Your task to perform on an android device: Open calendar and show me the fourth week of next month Image 0: 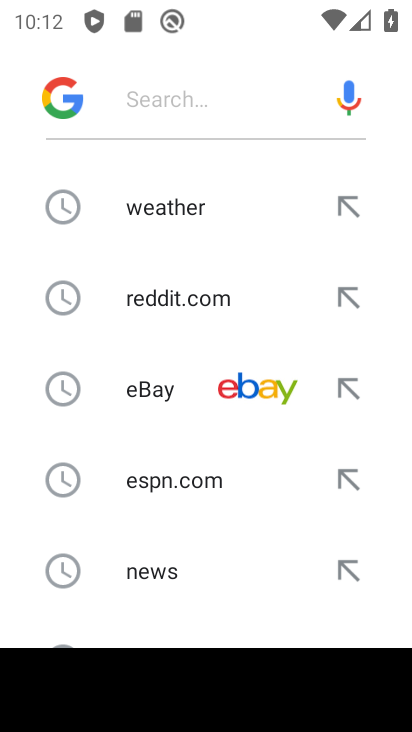
Step 0: press home button
Your task to perform on an android device: Open calendar and show me the fourth week of next month Image 1: 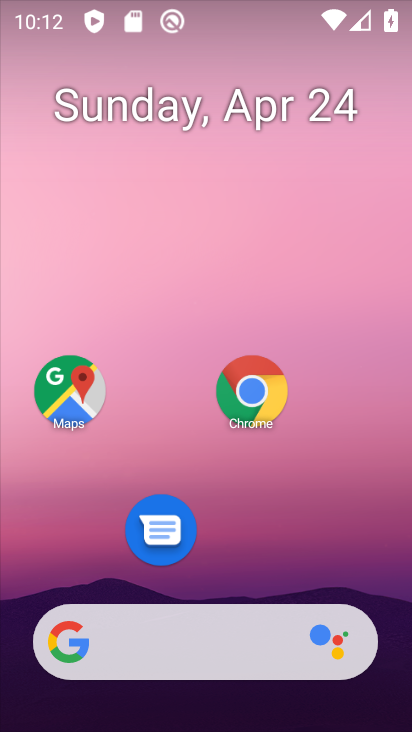
Step 1: click (245, 120)
Your task to perform on an android device: Open calendar and show me the fourth week of next month Image 2: 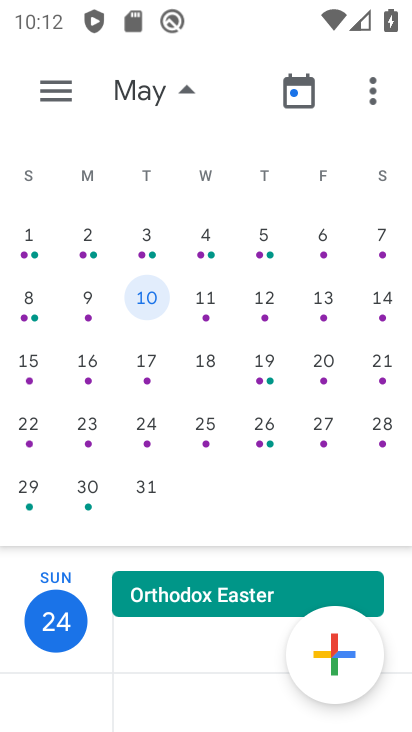
Step 2: click (214, 414)
Your task to perform on an android device: Open calendar and show me the fourth week of next month Image 3: 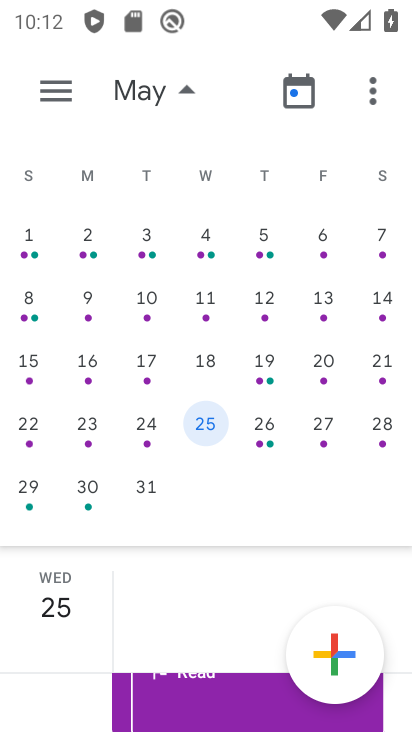
Step 3: task complete